Your task to perform on an android device: Search for Italian restaurants on Maps Image 0: 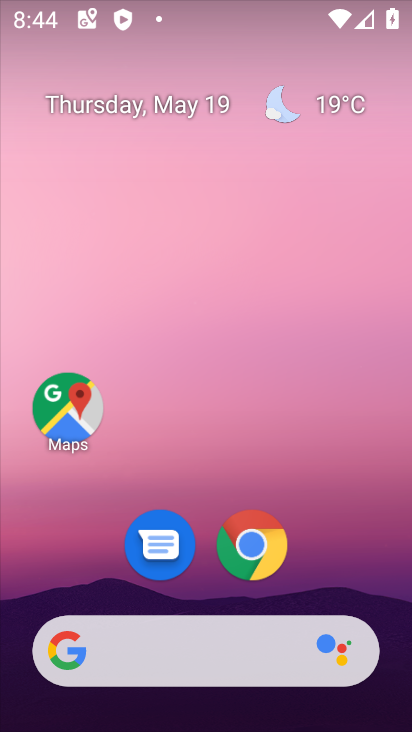
Step 0: click (49, 388)
Your task to perform on an android device: Search for Italian restaurants on Maps Image 1: 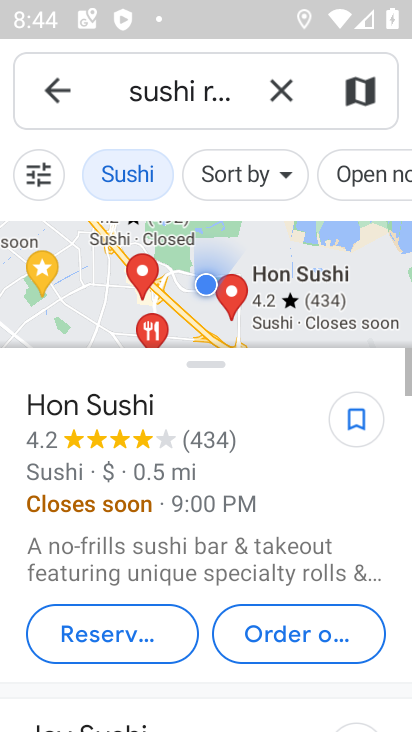
Step 1: click (263, 97)
Your task to perform on an android device: Search for Italian restaurants on Maps Image 2: 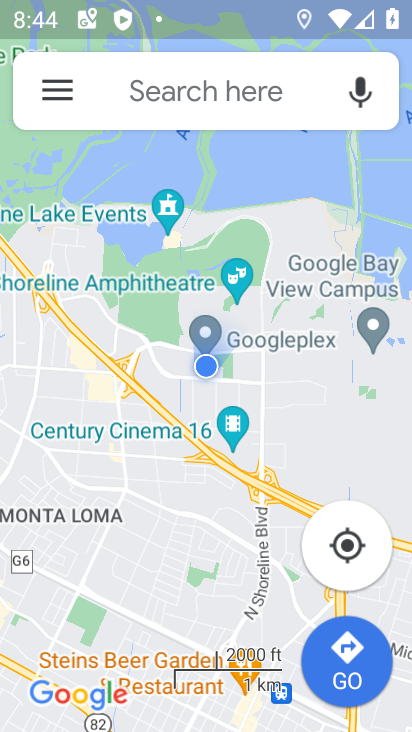
Step 2: click (220, 98)
Your task to perform on an android device: Search for Italian restaurants on Maps Image 3: 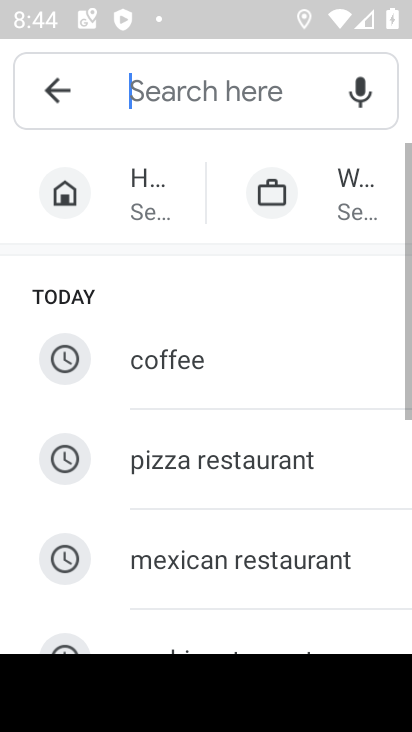
Step 3: drag from (171, 555) to (192, 319)
Your task to perform on an android device: Search for Italian restaurants on Maps Image 4: 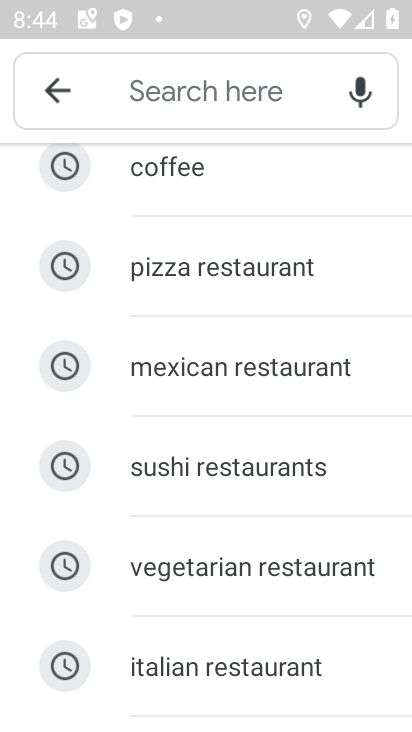
Step 4: click (186, 676)
Your task to perform on an android device: Search for Italian restaurants on Maps Image 5: 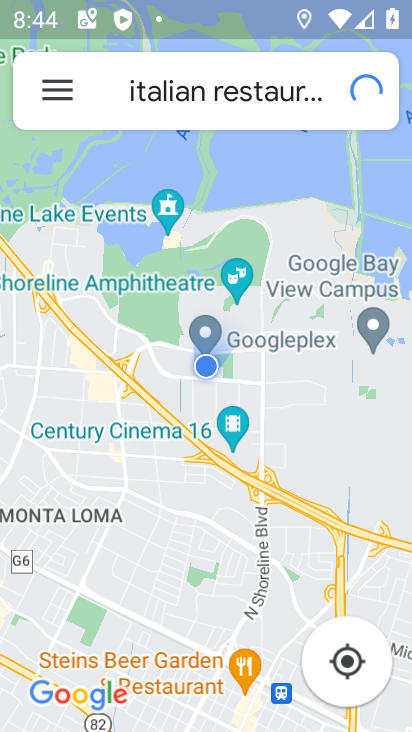
Step 5: task complete